Your task to perform on an android device: Do I have any events today? Image 0: 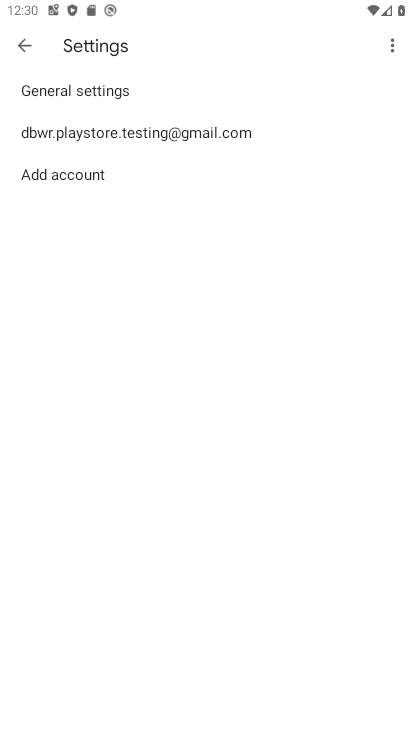
Step 0: press home button
Your task to perform on an android device: Do I have any events today? Image 1: 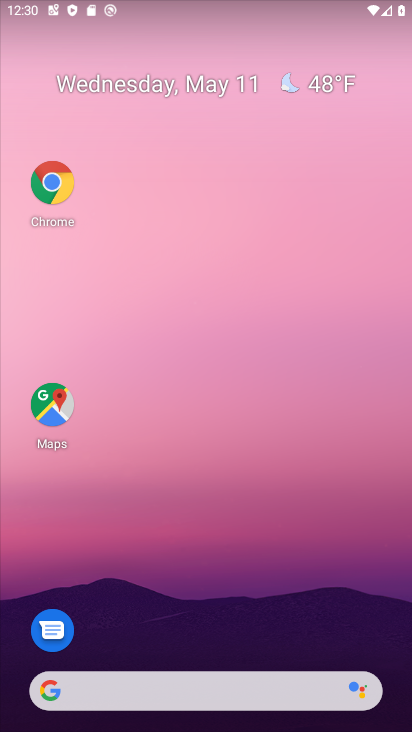
Step 1: drag from (229, 655) to (171, 48)
Your task to perform on an android device: Do I have any events today? Image 2: 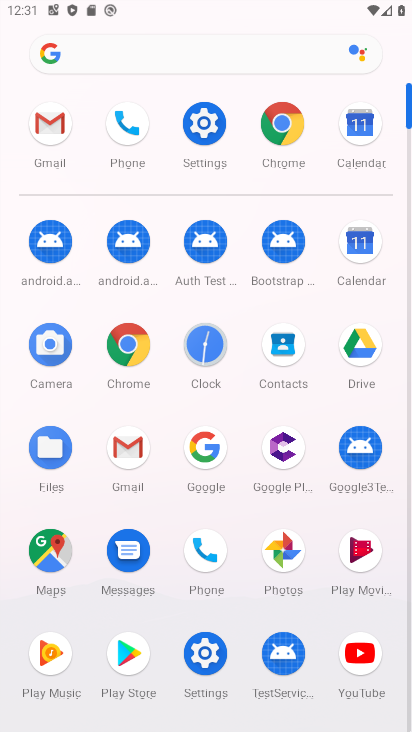
Step 2: click (195, 437)
Your task to perform on an android device: Do I have any events today? Image 3: 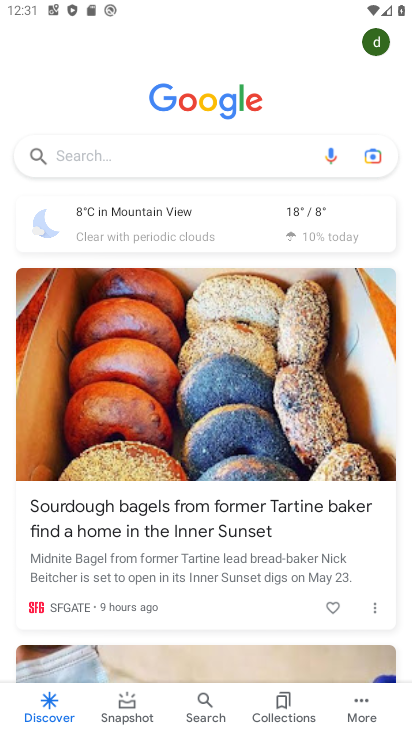
Step 3: press back button
Your task to perform on an android device: Do I have any events today? Image 4: 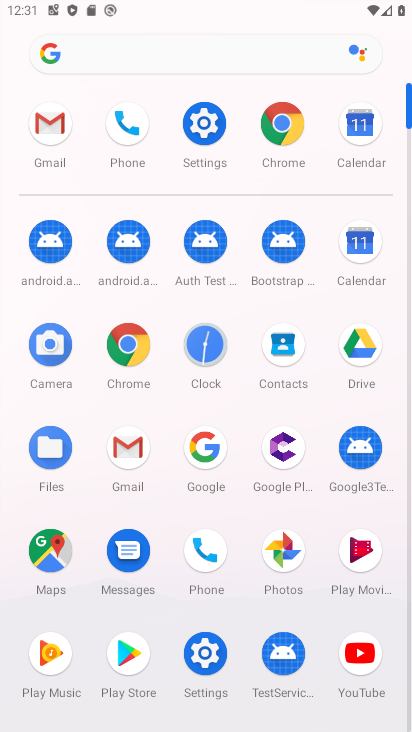
Step 4: click (365, 249)
Your task to perform on an android device: Do I have any events today? Image 5: 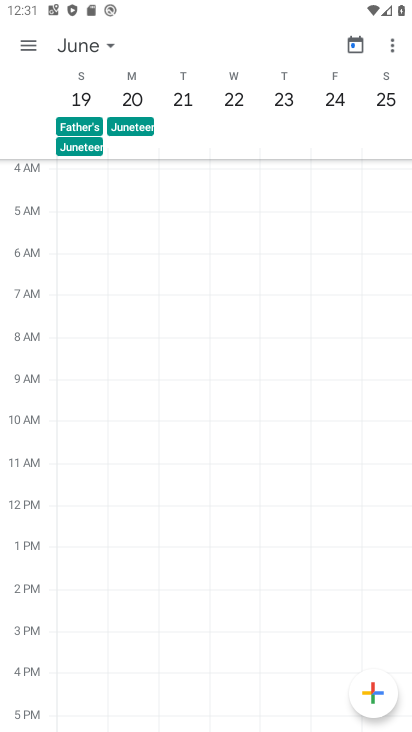
Step 5: click (343, 44)
Your task to perform on an android device: Do I have any events today? Image 6: 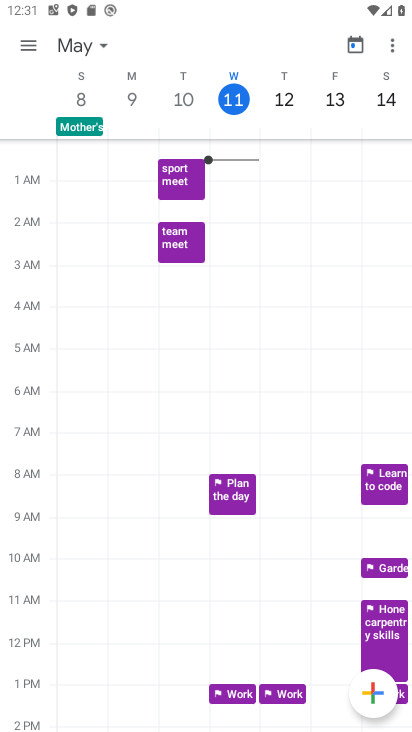
Step 6: click (234, 83)
Your task to perform on an android device: Do I have any events today? Image 7: 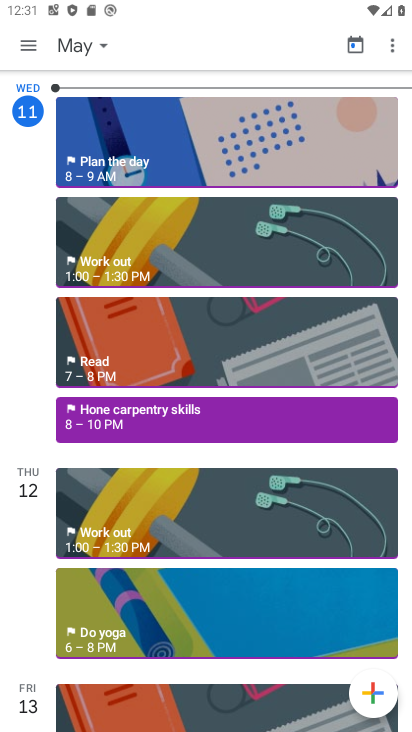
Step 7: task complete